Your task to perform on an android device: check out phone information Image 0: 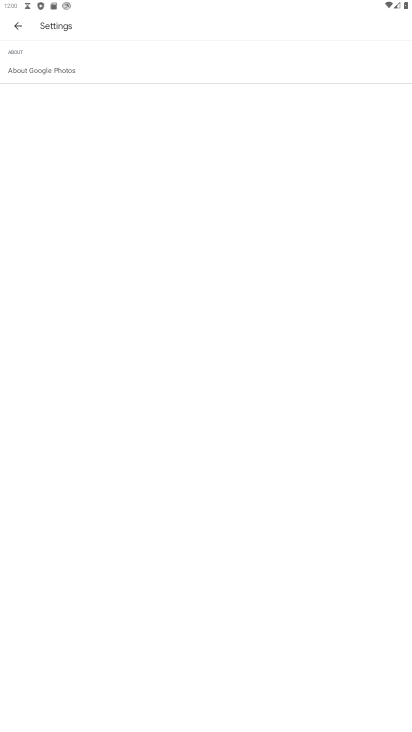
Step 0: press home button
Your task to perform on an android device: check out phone information Image 1: 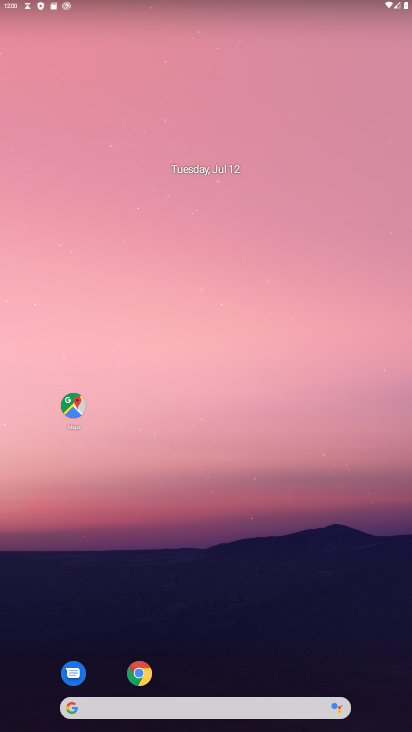
Step 1: drag from (264, 683) to (209, 168)
Your task to perform on an android device: check out phone information Image 2: 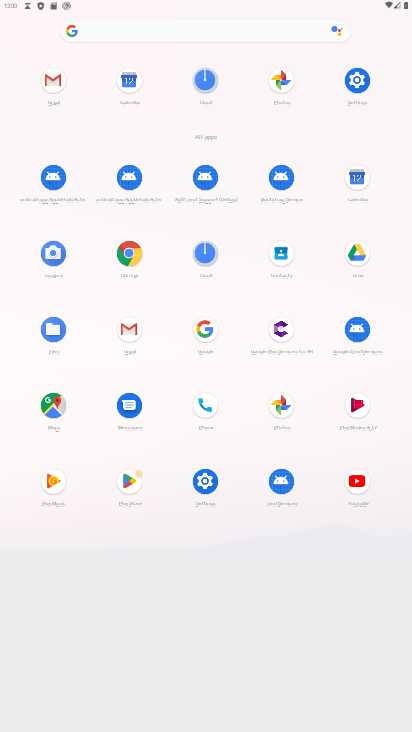
Step 2: click (359, 83)
Your task to perform on an android device: check out phone information Image 3: 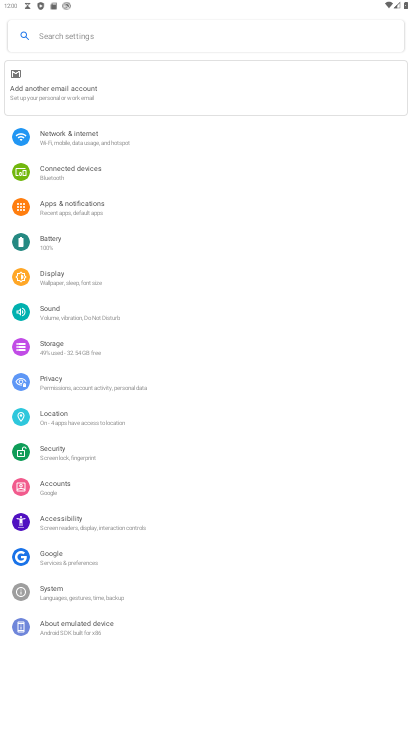
Step 3: click (120, 634)
Your task to perform on an android device: check out phone information Image 4: 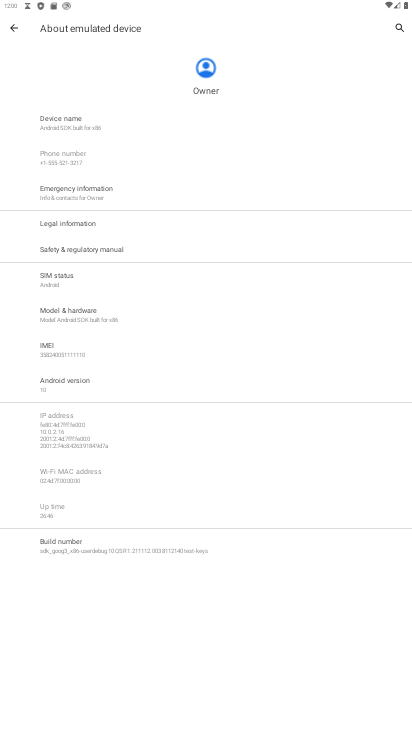
Step 4: task complete